Your task to perform on an android device: Open calendar and show me the third week of next month Image 0: 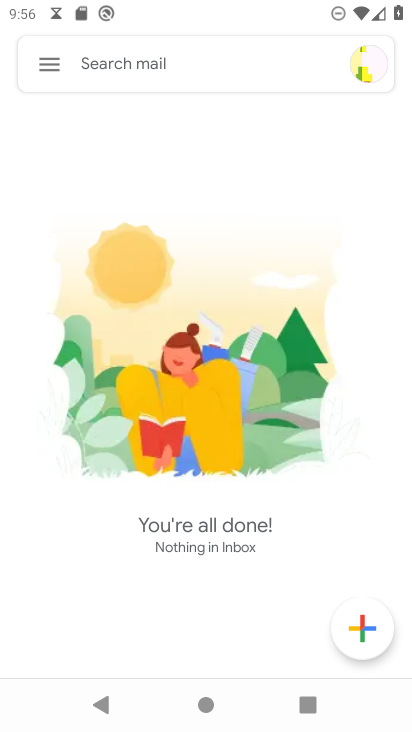
Step 0: press home button
Your task to perform on an android device: Open calendar and show me the third week of next month Image 1: 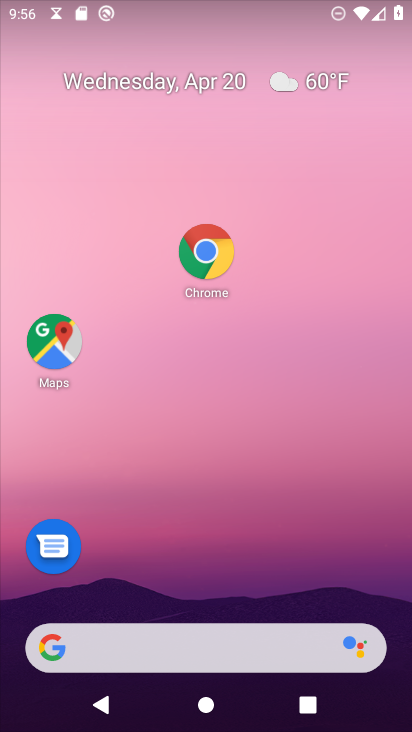
Step 1: drag from (154, 625) to (192, 159)
Your task to perform on an android device: Open calendar and show me the third week of next month Image 2: 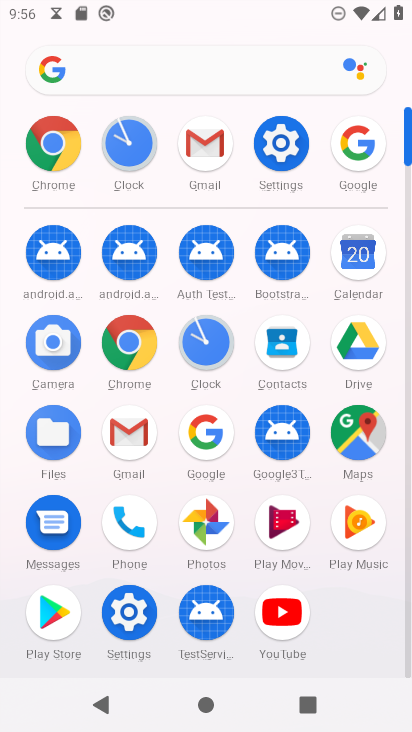
Step 2: click (357, 260)
Your task to perform on an android device: Open calendar and show me the third week of next month Image 3: 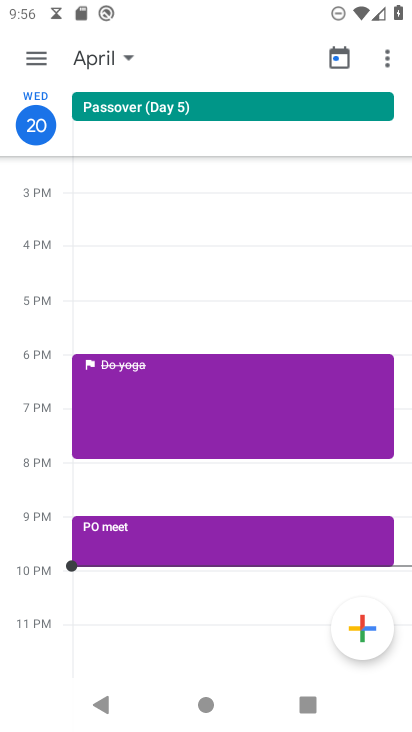
Step 3: click (109, 58)
Your task to perform on an android device: Open calendar and show me the third week of next month Image 4: 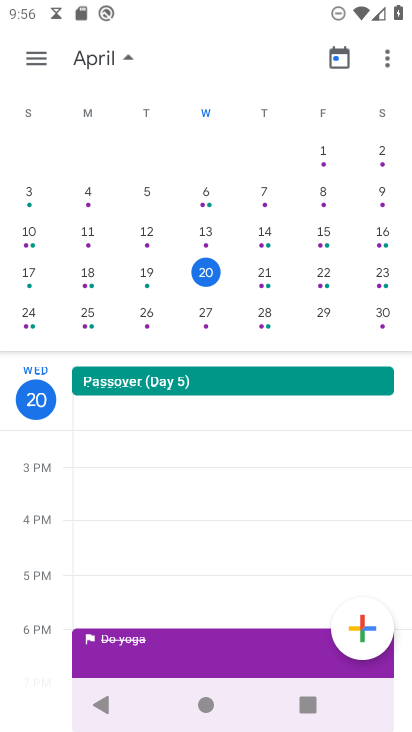
Step 4: drag from (384, 300) to (3, 275)
Your task to perform on an android device: Open calendar and show me the third week of next month Image 5: 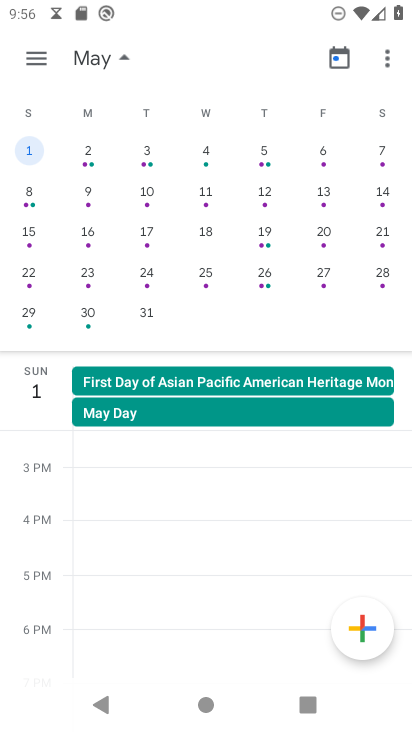
Step 5: click (28, 237)
Your task to perform on an android device: Open calendar and show me the third week of next month Image 6: 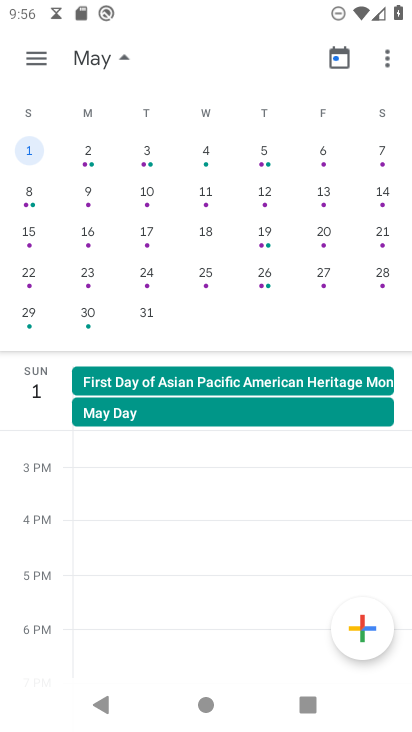
Step 6: click (35, 231)
Your task to perform on an android device: Open calendar and show me the third week of next month Image 7: 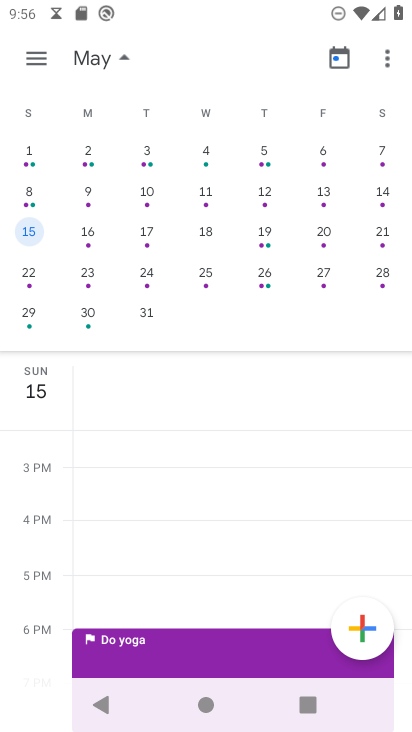
Step 7: task complete